Your task to perform on an android device: Search for pizza restaurants on Maps Image 0: 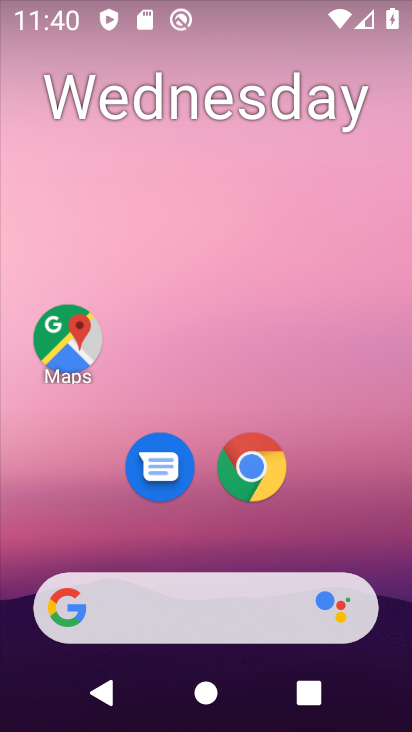
Step 0: click (71, 347)
Your task to perform on an android device: Search for pizza restaurants on Maps Image 1: 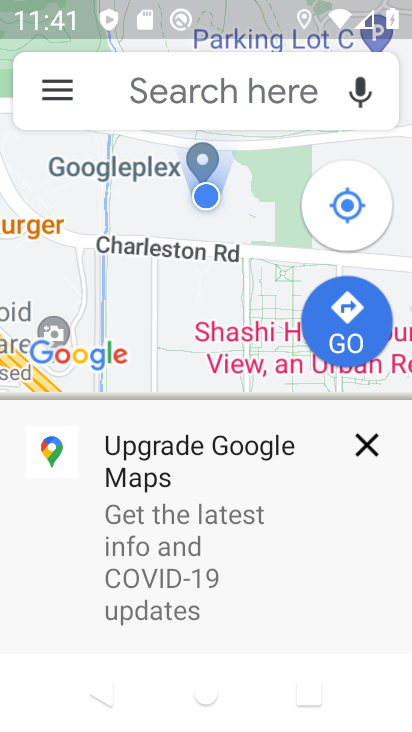
Step 1: click (212, 87)
Your task to perform on an android device: Search for pizza restaurants on Maps Image 2: 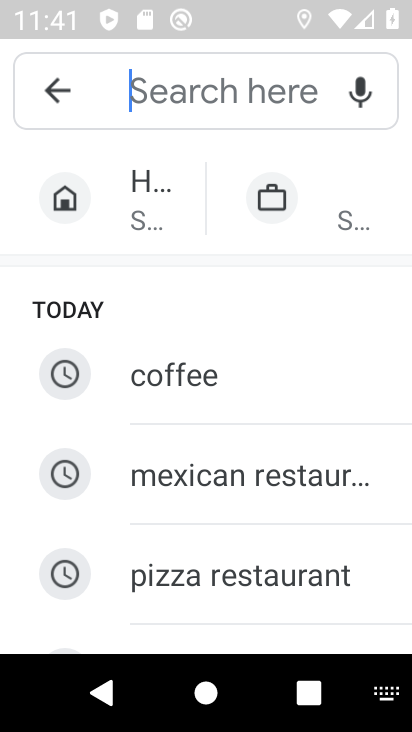
Step 2: click (246, 570)
Your task to perform on an android device: Search for pizza restaurants on Maps Image 3: 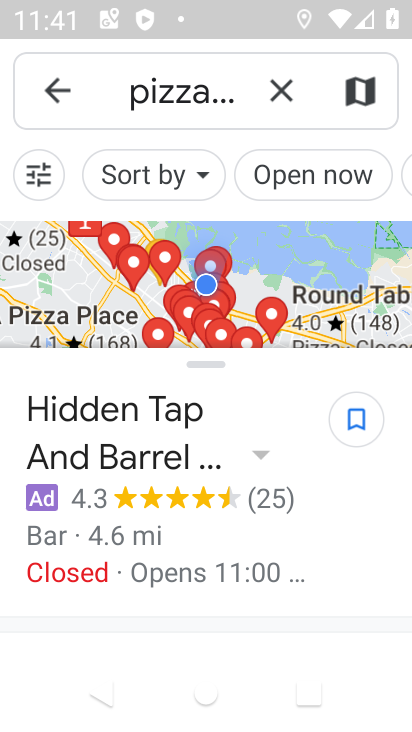
Step 3: task complete